Your task to perform on an android device: Show me popular videos on Youtube Image 0: 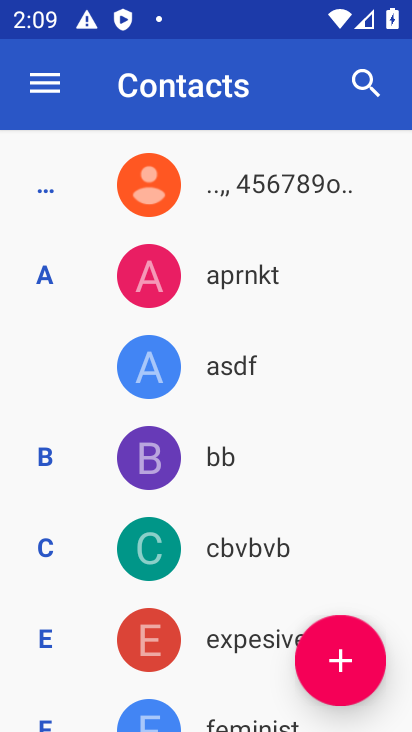
Step 0: press home button
Your task to perform on an android device: Show me popular videos on Youtube Image 1: 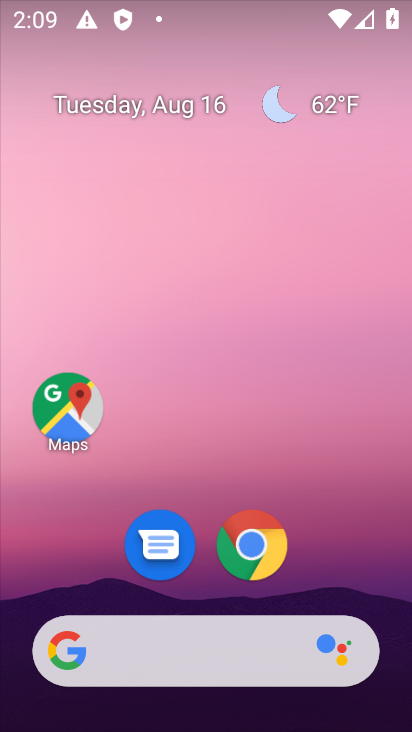
Step 1: drag from (161, 512) to (152, 174)
Your task to perform on an android device: Show me popular videos on Youtube Image 2: 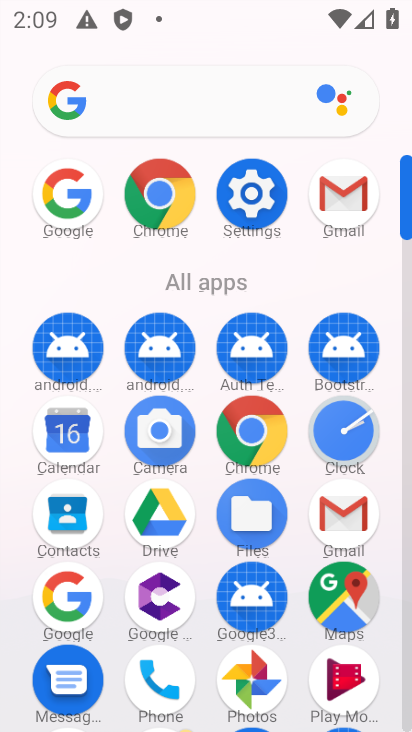
Step 2: drag from (198, 654) to (199, 194)
Your task to perform on an android device: Show me popular videos on Youtube Image 3: 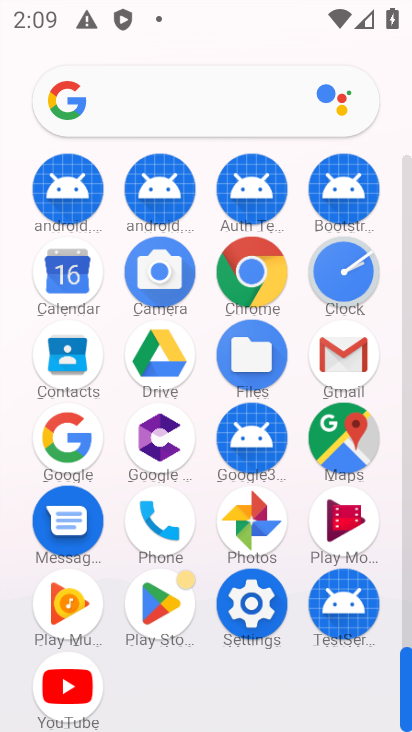
Step 3: click (54, 676)
Your task to perform on an android device: Show me popular videos on Youtube Image 4: 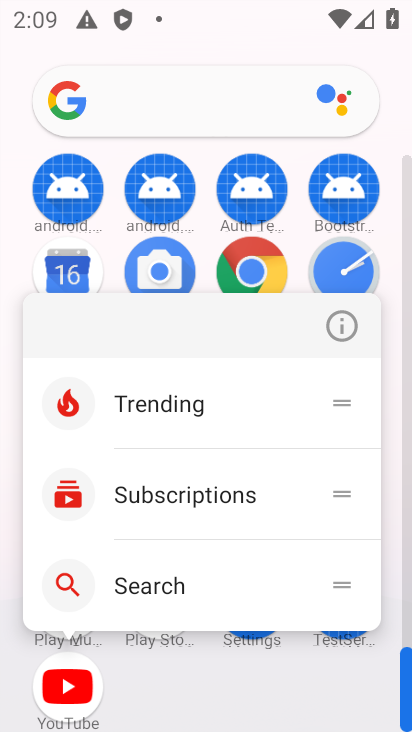
Step 4: click (54, 676)
Your task to perform on an android device: Show me popular videos on Youtube Image 5: 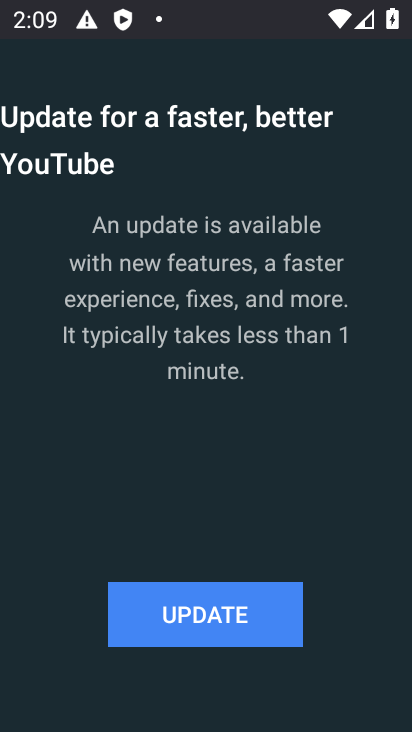
Step 5: click (222, 618)
Your task to perform on an android device: Show me popular videos on Youtube Image 6: 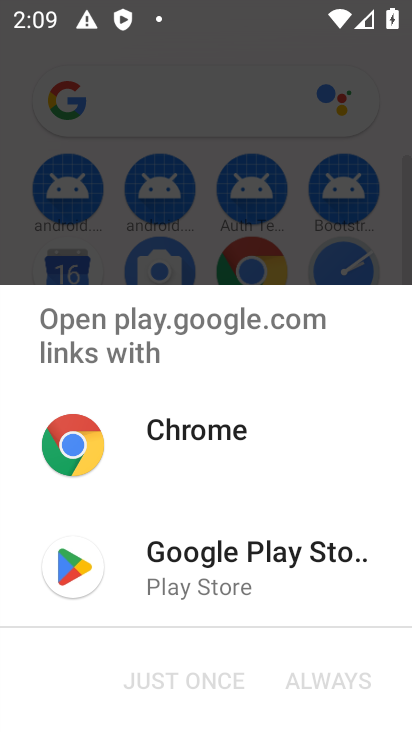
Step 6: click (194, 579)
Your task to perform on an android device: Show me popular videos on Youtube Image 7: 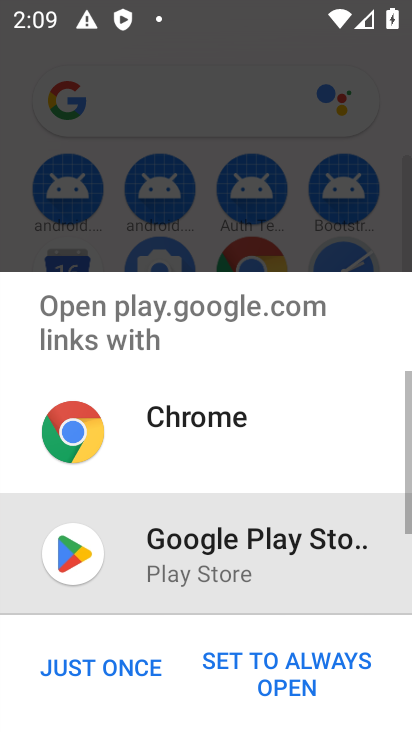
Step 7: click (202, 683)
Your task to perform on an android device: Show me popular videos on Youtube Image 8: 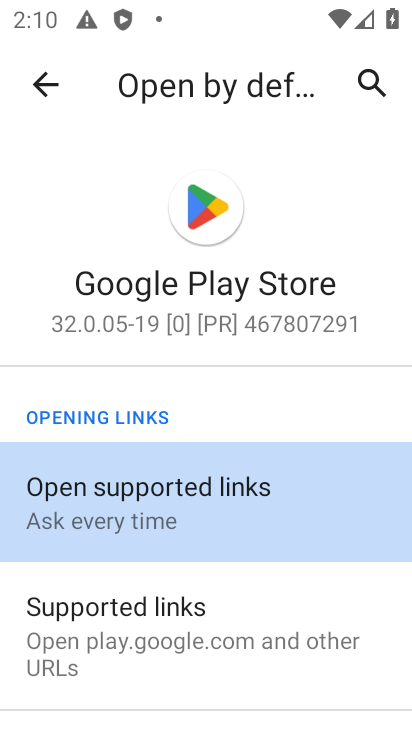
Step 8: click (49, 73)
Your task to perform on an android device: Show me popular videos on Youtube Image 9: 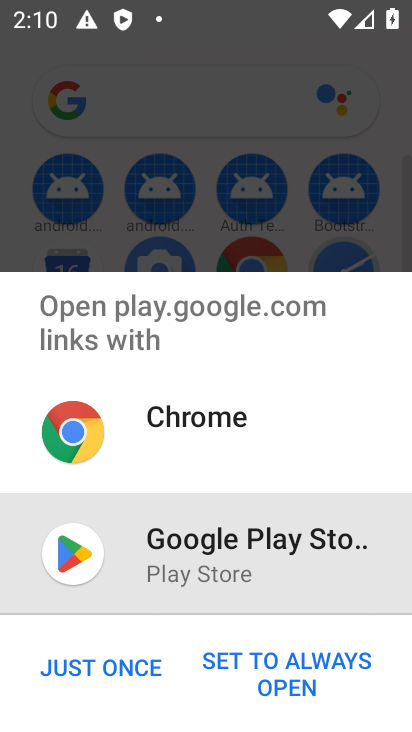
Step 9: click (98, 661)
Your task to perform on an android device: Show me popular videos on Youtube Image 10: 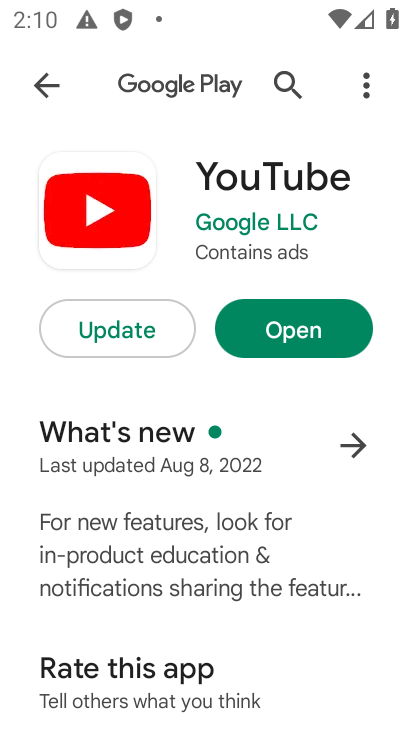
Step 10: click (108, 332)
Your task to perform on an android device: Show me popular videos on Youtube Image 11: 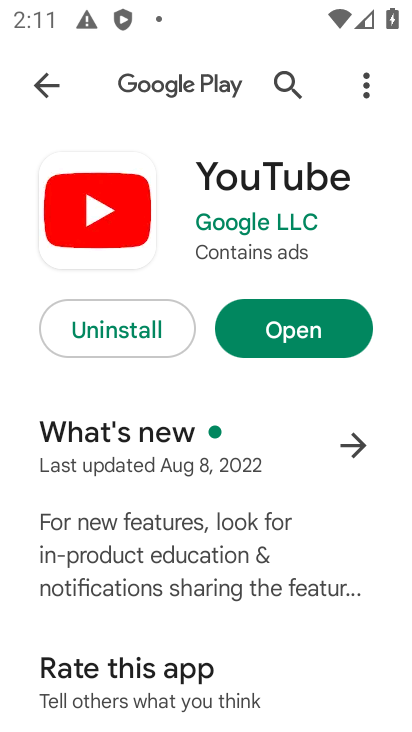
Step 11: click (289, 337)
Your task to perform on an android device: Show me popular videos on Youtube Image 12: 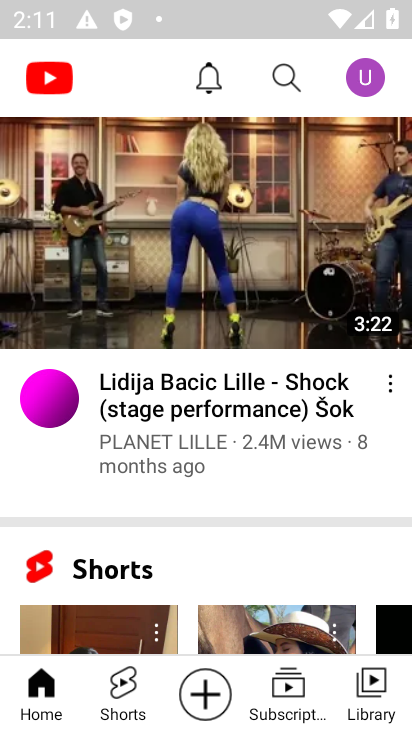
Step 12: task complete